Your task to perform on an android device: turn on translation in the chrome app Image 0: 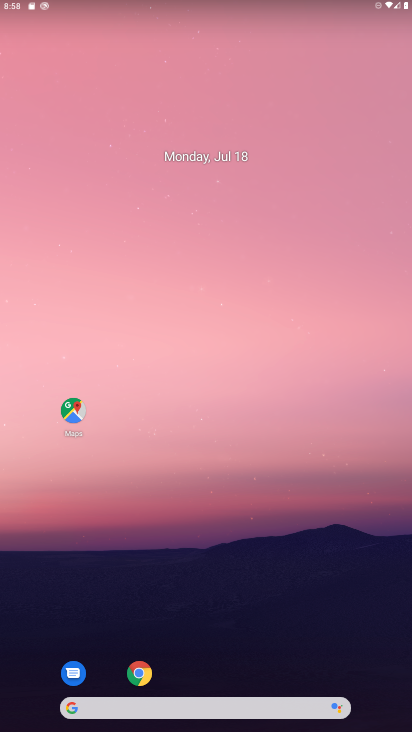
Step 0: press home button
Your task to perform on an android device: turn on translation in the chrome app Image 1: 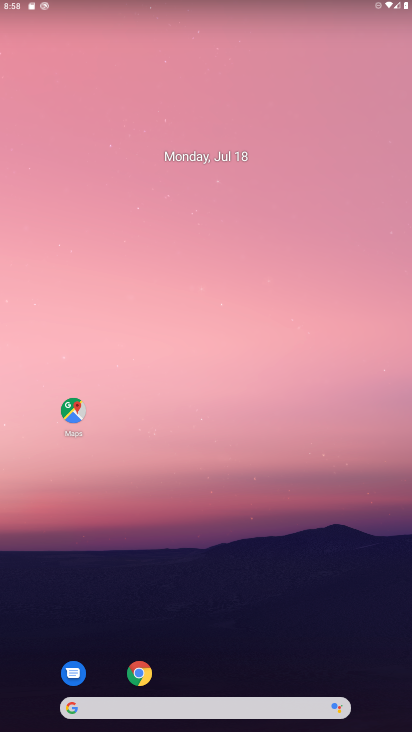
Step 1: drag from (243, 646) to (253, 123)
Your task to perform on an android device: turn on translation in the chrome app Image 2: 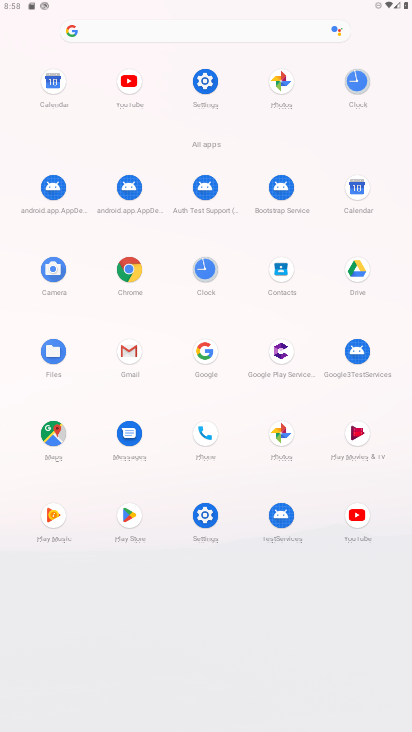
Step 2: click (131, 269)
Your task to perform on an android device: turn on translation in the chrome app Image 3: 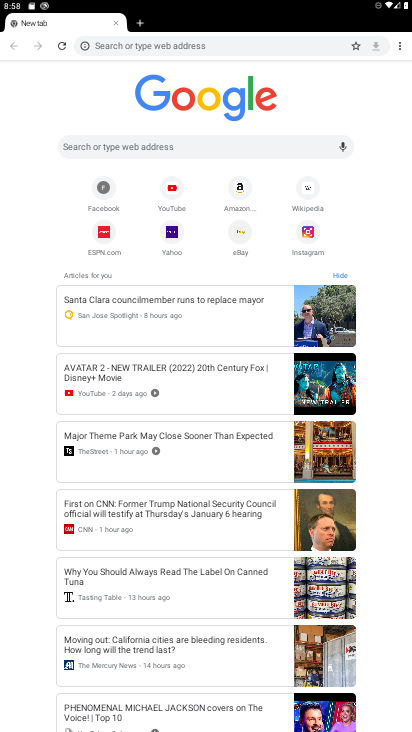
Step 3: click (401, 52)
Your task to perform on an android device: turn on translation in the chrome app Image 4: 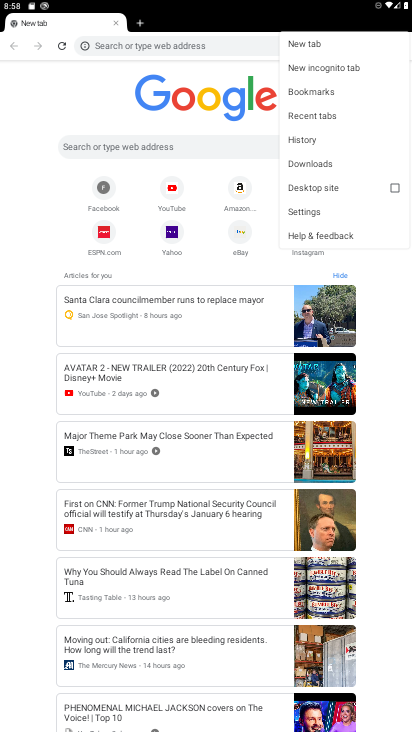
Step 4: click (319, 213)
Your task to perform on an android device: turn on translation in the chrome app Image 5: 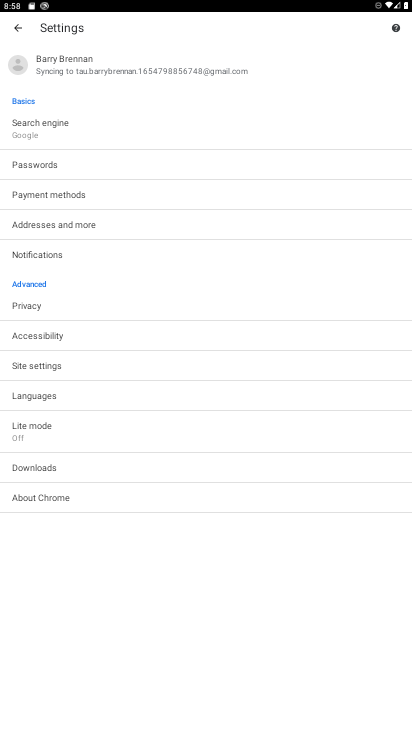
Step 5: click (29, 396)
Your task to perform on an android device: turn on translation in the chrome app Image 6: 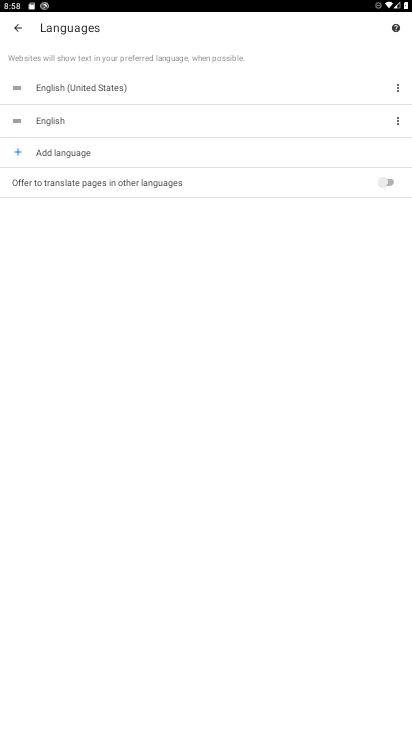
Step 6: click (384, 184)
Your task to perform on an android device: turn on translation in the chrome app Image 7: 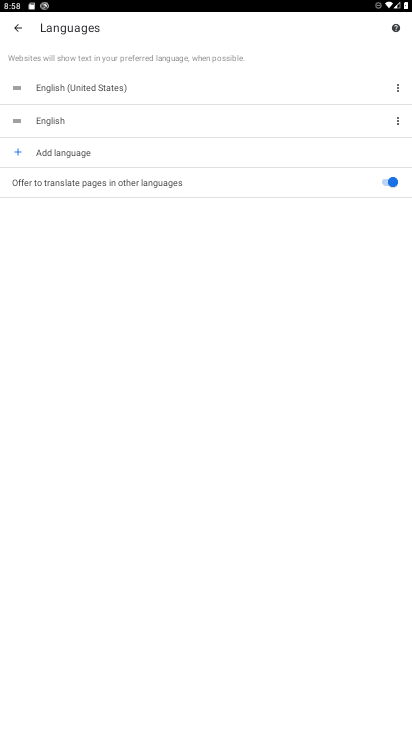
Step 7: task complete